Your task to perform on an android device: Go to calendar. Show me events next week Image 0: 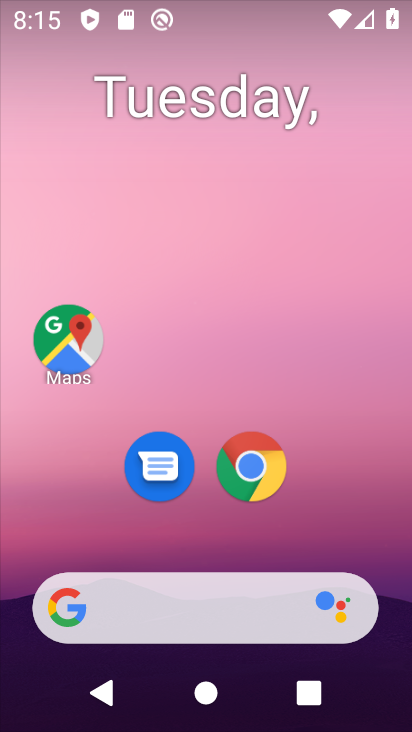
Step 0: drag from (207, 564) to (241, 39)
Your task to perform on an android device: Go to calendar. Show me events next week Image 1: 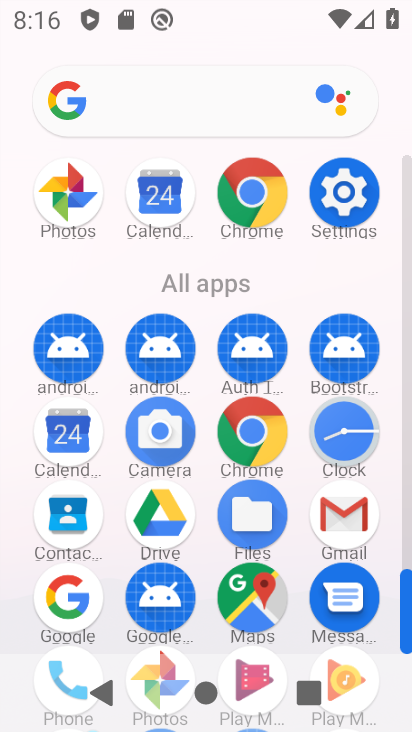
Step 1: click (71, 429)
Your task to perform on an android device: Go to calendar. Show me events next week Image 2: 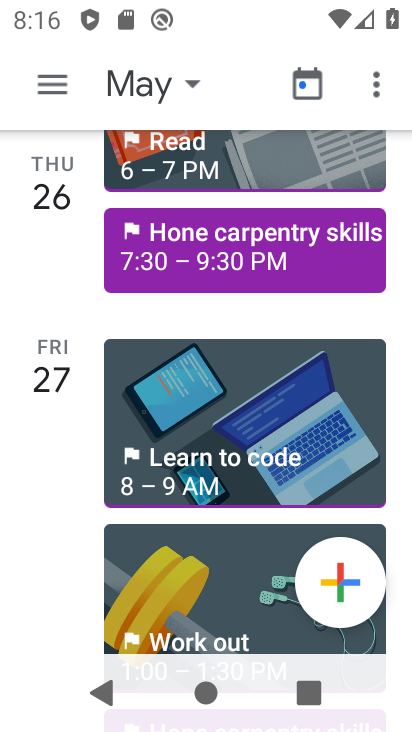
Step 2: click (58, 77)
Your task to perform on an android device: Go to calendar. Show me events next week Image 3: 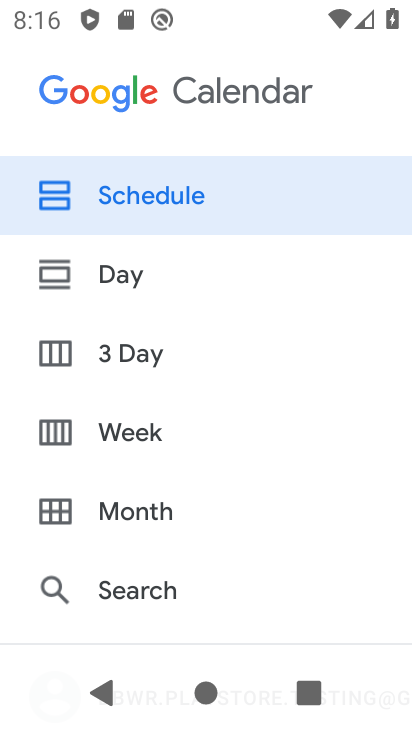
Step 3: drag from (143, 565) to (217, 116)
Your task to perform on an android device: Go to calendar. Show me events next week Image 4: 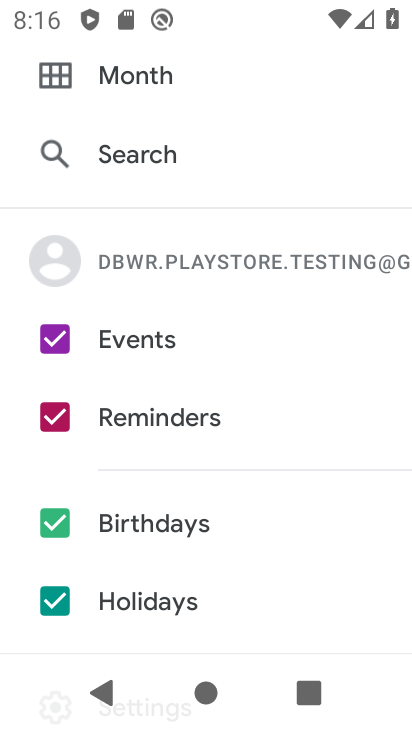
Step 4: click (161, 524)
Your task to perform on an android device: Go to calendar. Show me events next week Image 5: 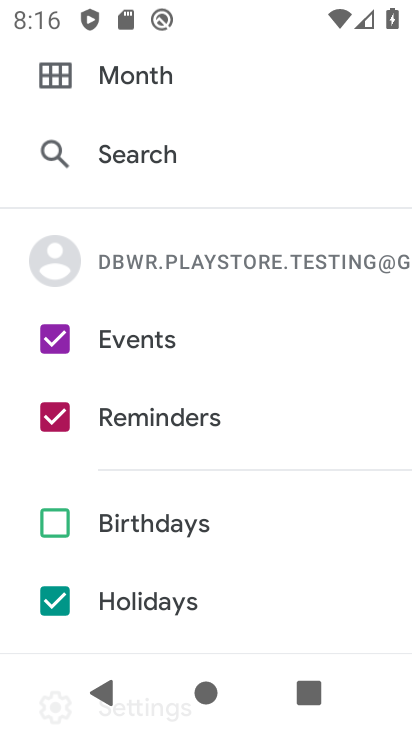
Step 5: click (138, 603)
Your task to perform on an android device: Go to calendar. Show me events next week Image 6: 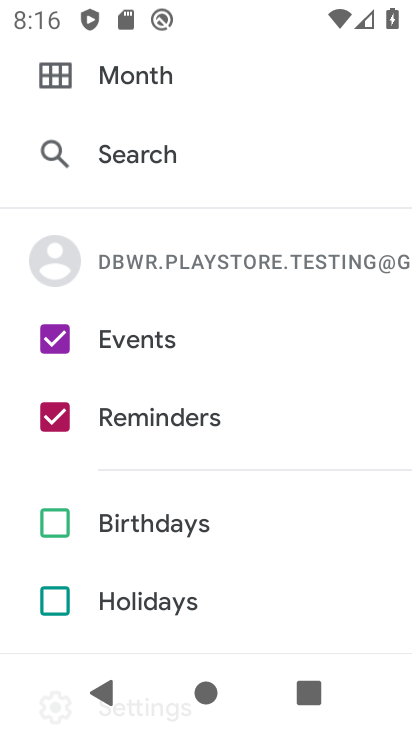
Step 6: click (116, 414)
Your task to perform on an android device: Go to calendar. Show me events next week Image 7: 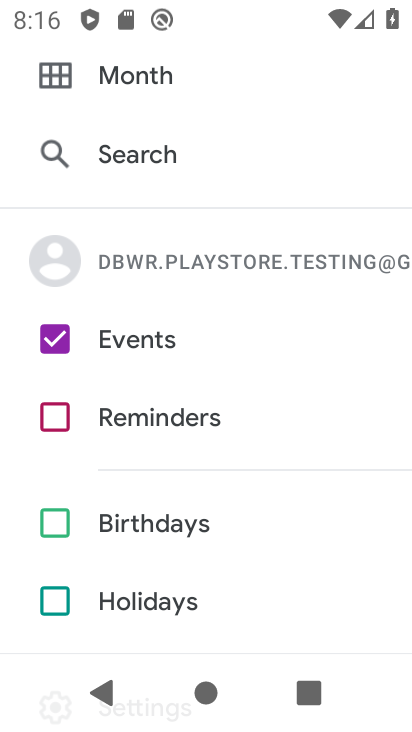
Step 7: drag from (197, 192) to (165, 502)
Your task to perform on an android device: Go to calendar. Show me events next week Image 8: 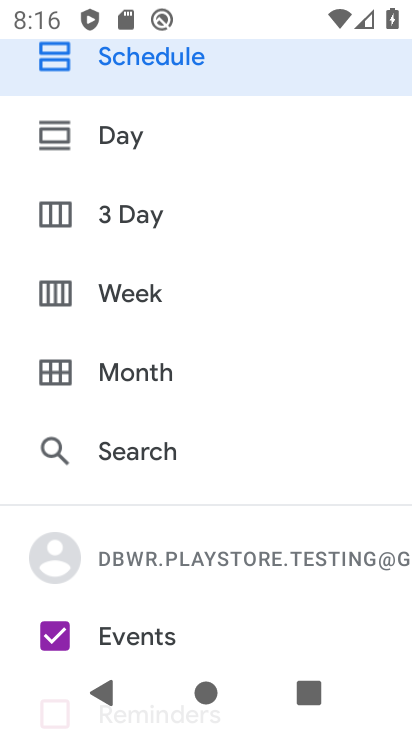
Step 8: click (143, 299)
Your task to perform on an android device: Go to calendar. Show me events next week Image 9: 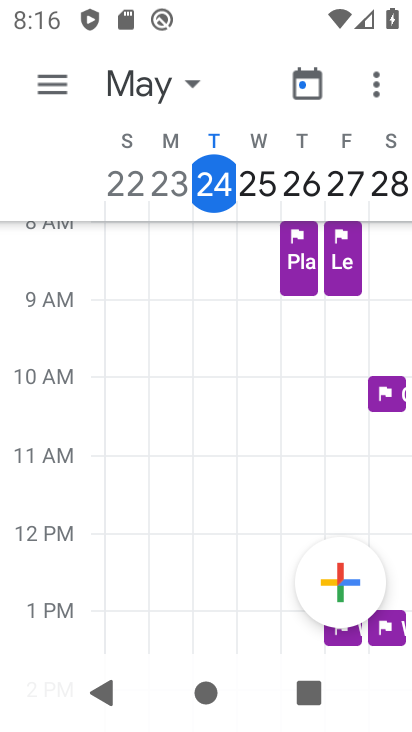
Step 9: task complete